Your task to perform on an android device: change the clock display to digital Image 0: 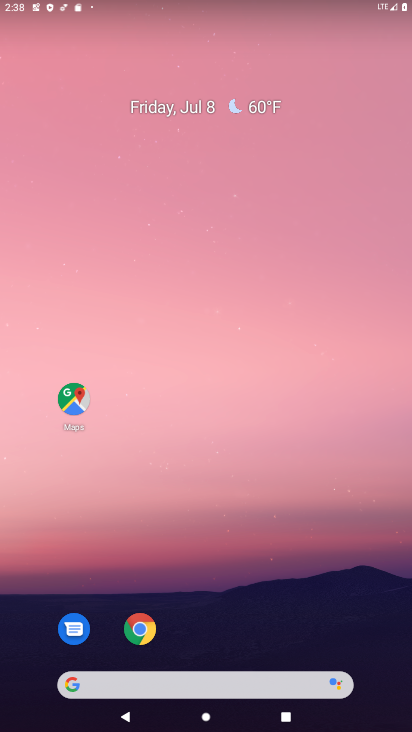
Step 0: drag from (202, 636) to (202, 280)
Your task to perform on an android device: change the clock display to digital Image 1: 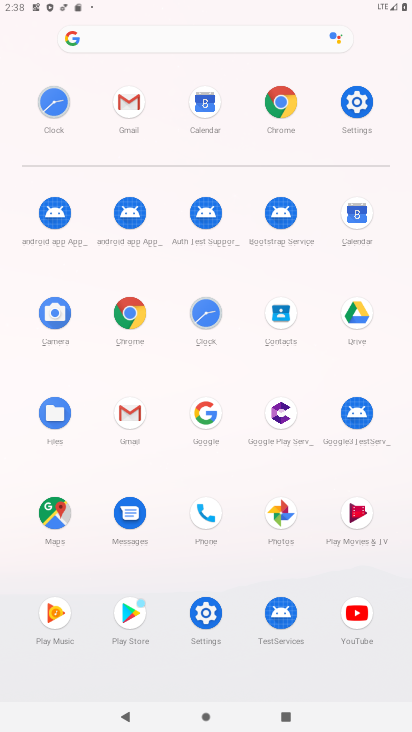
Step 1: click (194, 334)
Your task to perform on an android device: change the clock display to digital Image 2: 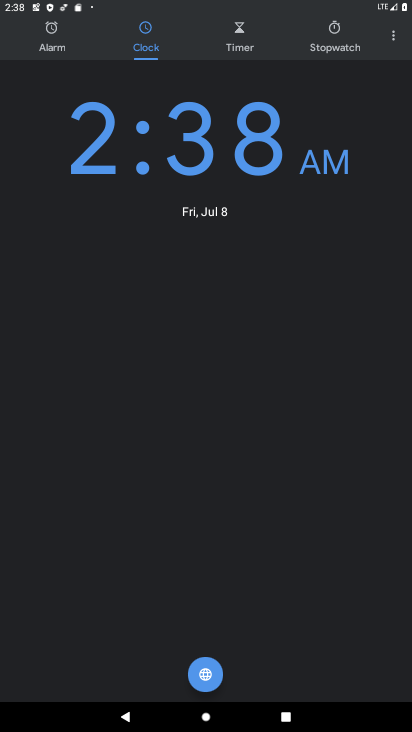
Step 2: click (386, 36)
Your task to perform on an android device: change the clock display to digital Image 3: 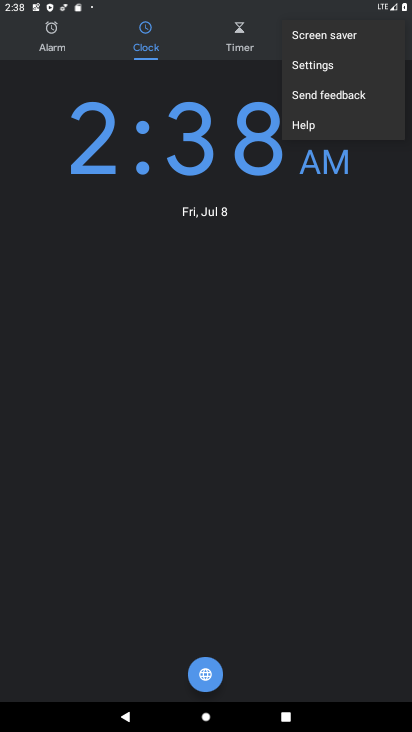
Step 3: click (357, 57)
Your task to perform on an android device: change the clock display to digital Image 4: 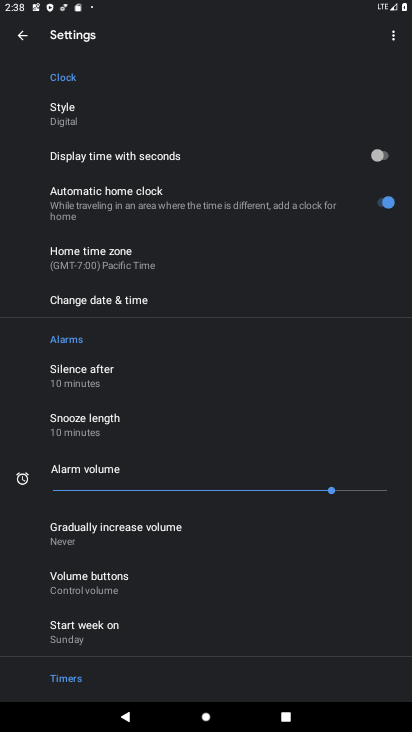
Step 4: task complete